Your task to perform on an android device: toggle javascript in the chrome app Image 0: 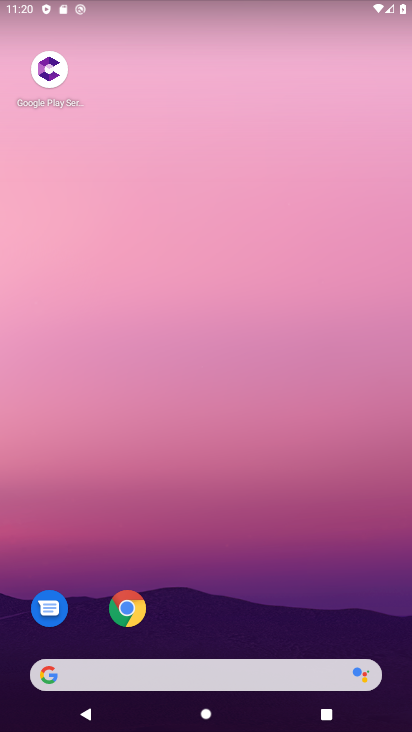
Step 0: click (127, 605)
Your task to perform on an android device: toggle javascript in the chrome app Image 1: 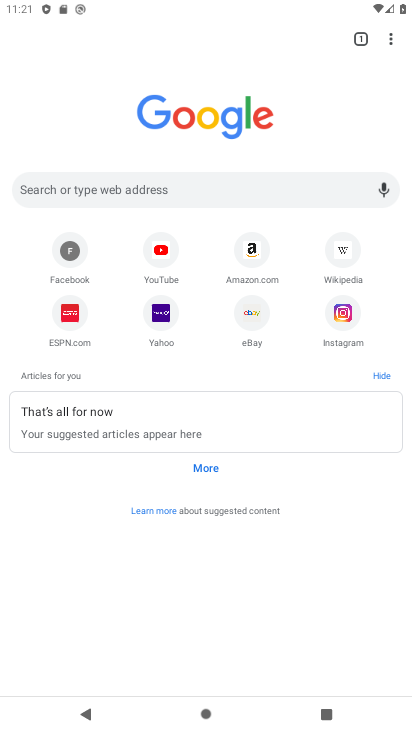
Step 1: click (386, 37)
Your task to perform on an android device: toggle javascript in the chrome app Image 2: 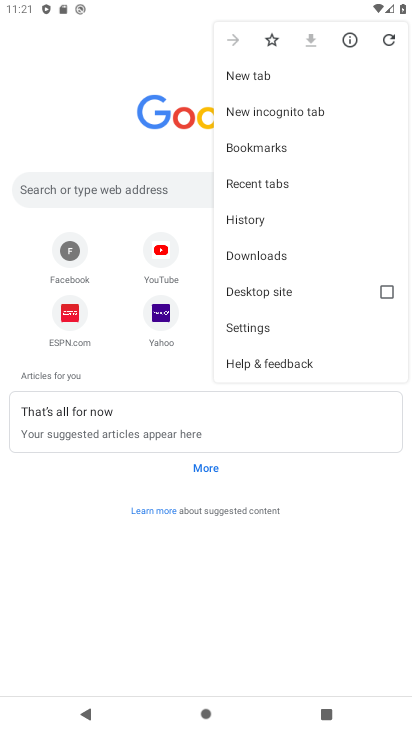
Step 2: click (258, 320)
Your task to perform on an android device: toggle javascript in the chrome app Image 3: 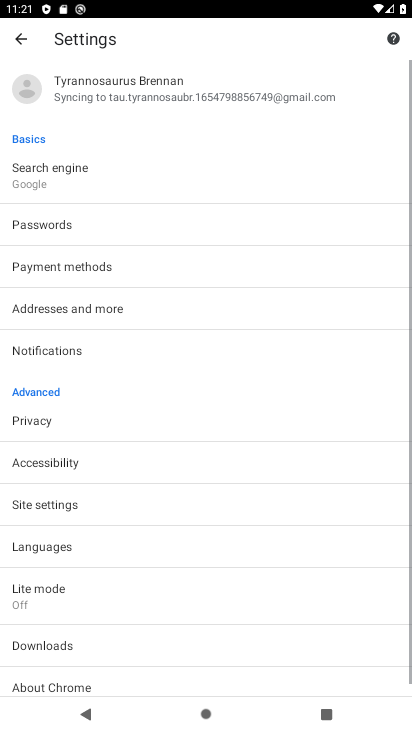
Step 3: click (74, 503)
Your task to perform on an android device: toggle javascript in the chrome app Image 4: 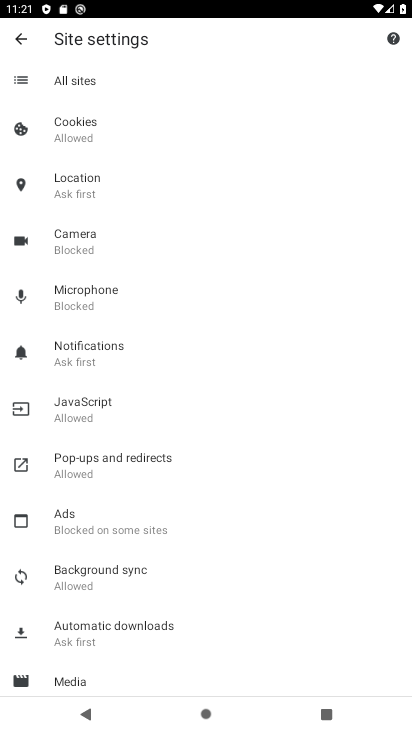
Step 4: click (109, 403)
Your task to perform on an android device: toggle javascript in the chrome app Image 5: 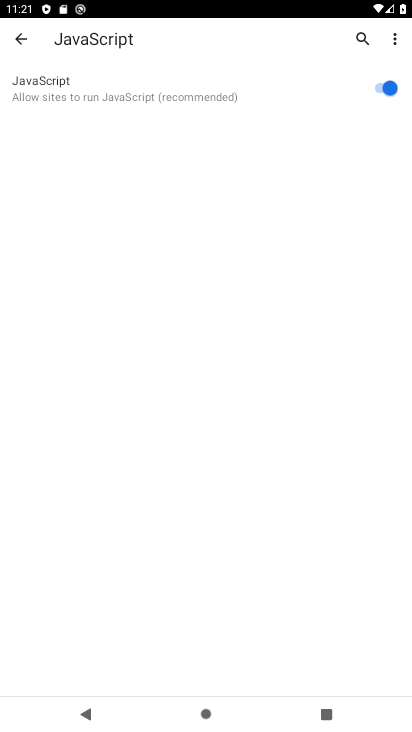
Step 5: click (393, 90)
Your task to perform on an android device: toggle javascript in the chrome app Image 6: 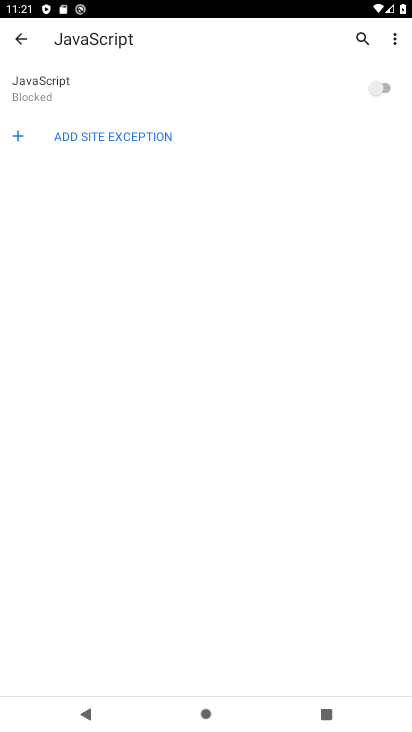
Step 6: task complete